Your task to perform on an android device: allow notifications from all sites in the chrome app Image 0: 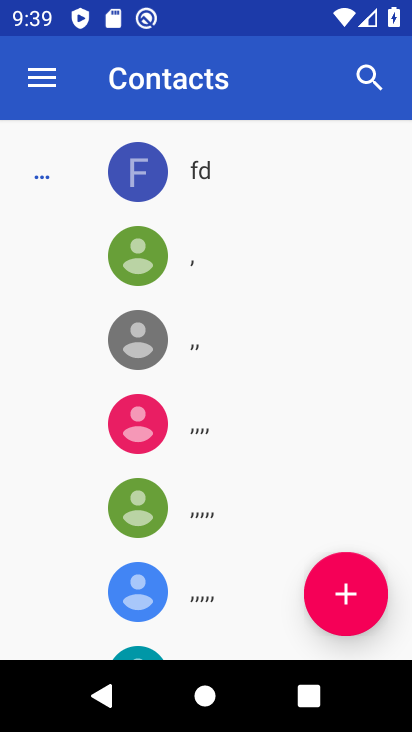
Step 0: press home button
Your task to perform on an android device: allow notifications from all sites in the chrome app Image 1: 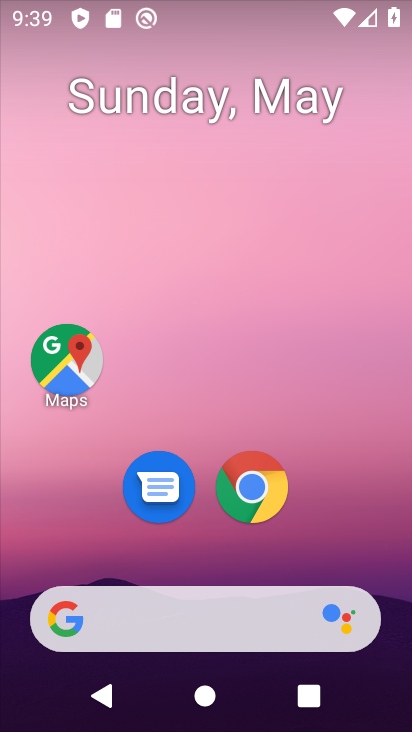
Step 1: drag from (376, 547) to (359, 177)
Your task to perform on an android device: allow notifications from all sites in the chrome app Image 2: 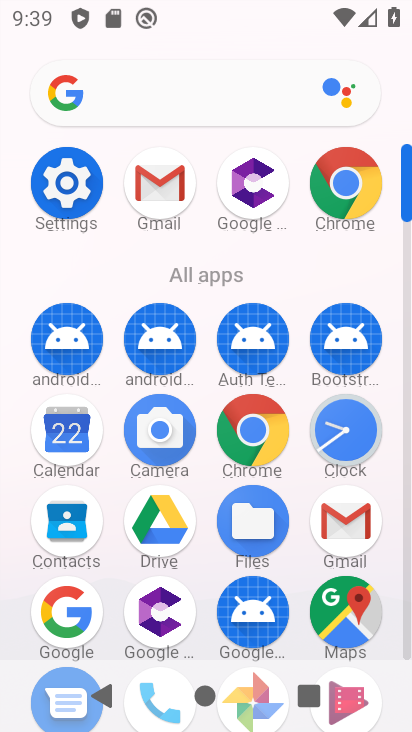
Step 2: click (280, 435)
Your task to perform on an android device: allow notifications from all sites in the chrome app Image 3: 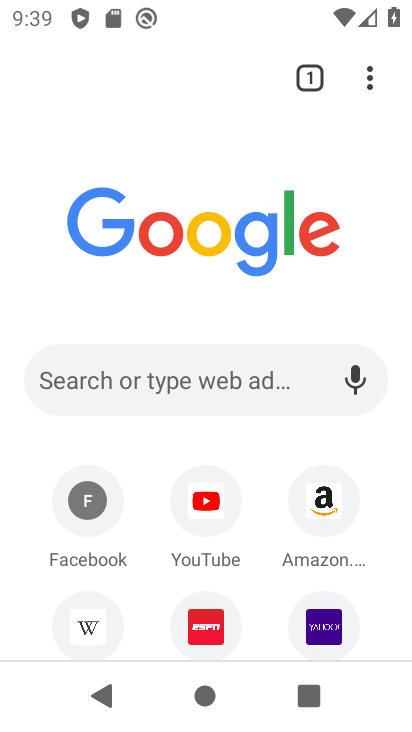
Step 3: click (373, 86)
Your task to perform on an android device: allow notifications from all sites in the chrome app Image 4: 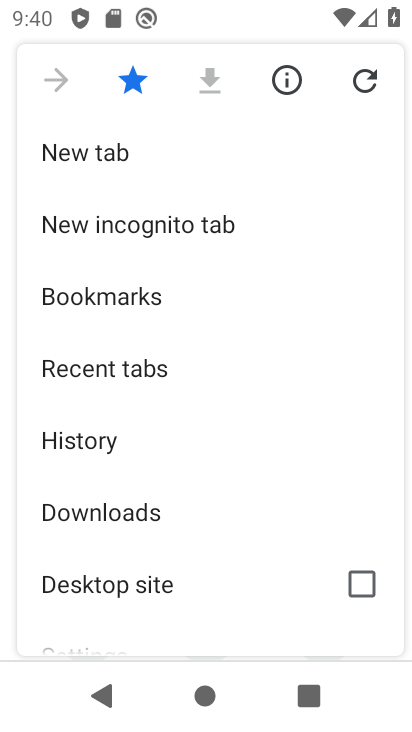
Step 4: drag from (295, 504) to (281, 319)
Your task to perform on an android device: allow notifications from all sites in the chrome app Image 5: 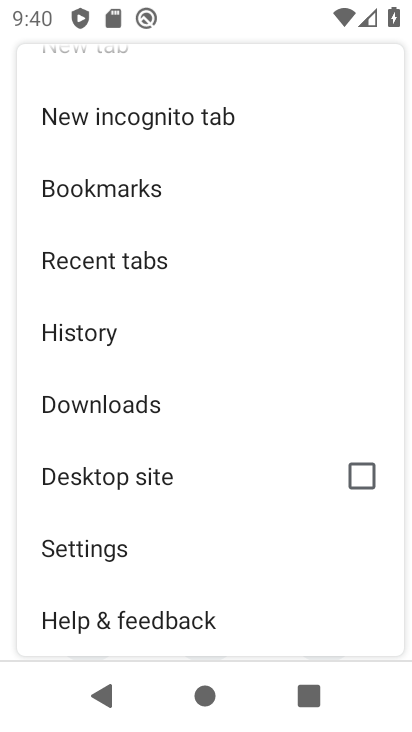
Step 5: drag from (238, 491) to (238, 331)
Your task to perform on an android device: allow notifications from all sites in the chrome app Image 6: 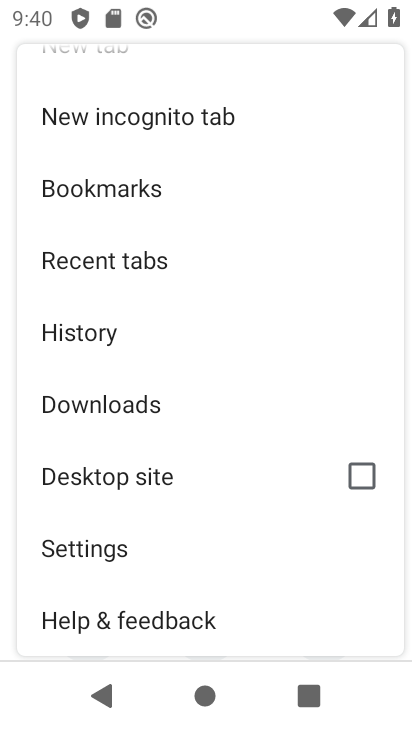
Step 6: click (119, 530)
Your task to perform on an android device: allow notifications from all sites in the chrome app Image 7: 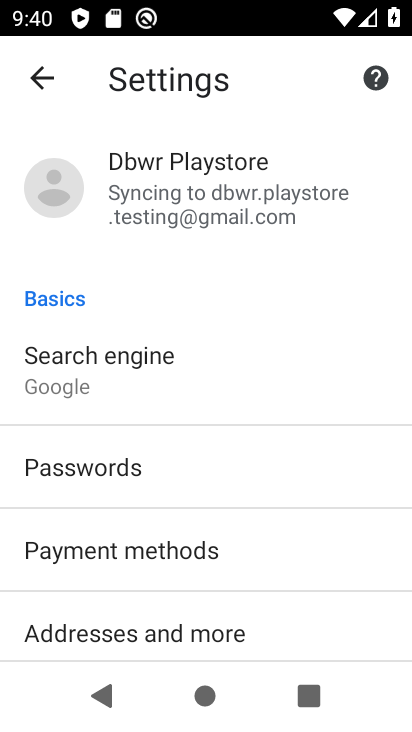
Step 7: drag from (261, 607) to (287, 419)
Your task to perform on an android device: allow notifications from all sites in the chrome app Image 8: 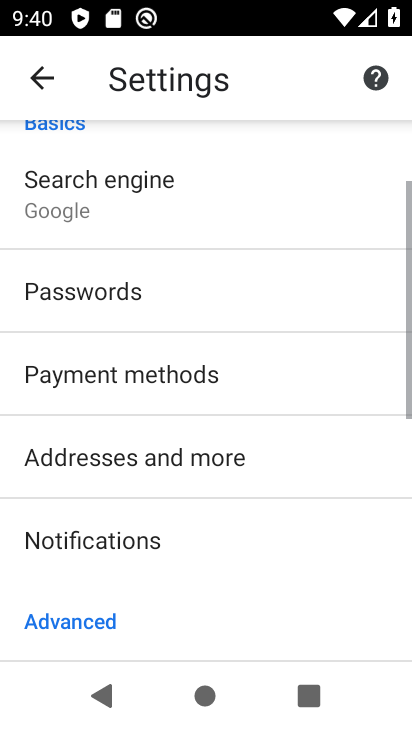
Step 8: drag from (277, 594) to (274, 458)
Your task to perform on an android device: allow notifications from all sites in the chrome app Image 9: 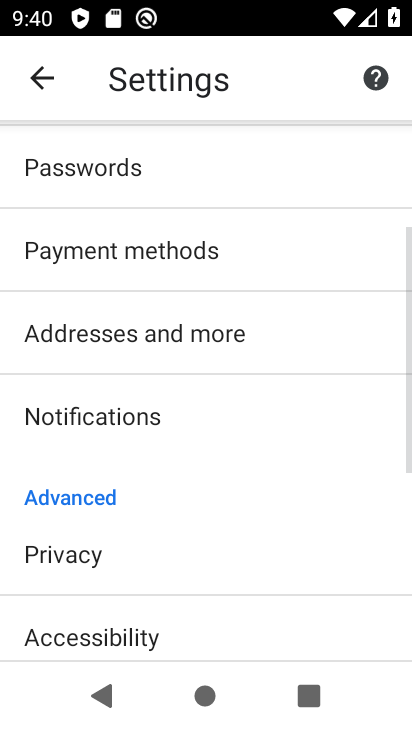
Step 9: drag from (303, 576) to (304, 439)
Your task to perform on an android device: allow notifications from all sites in the chrome app Image 10: 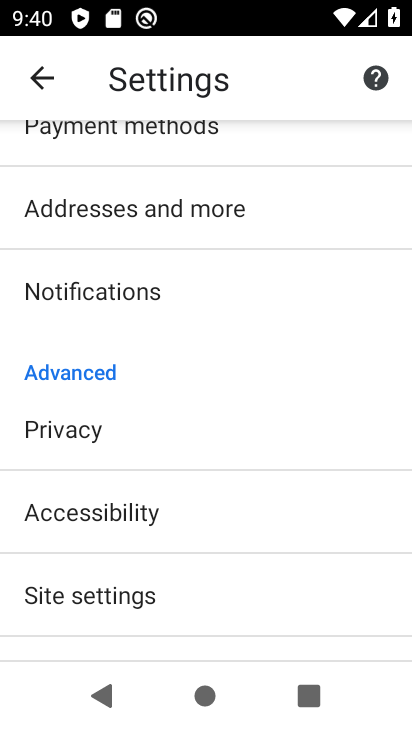
Step 10: drag from (319, 521) to (319, 364)
Your task to perform on an android device: allow notifications from all sites in the chrome app Image 11: 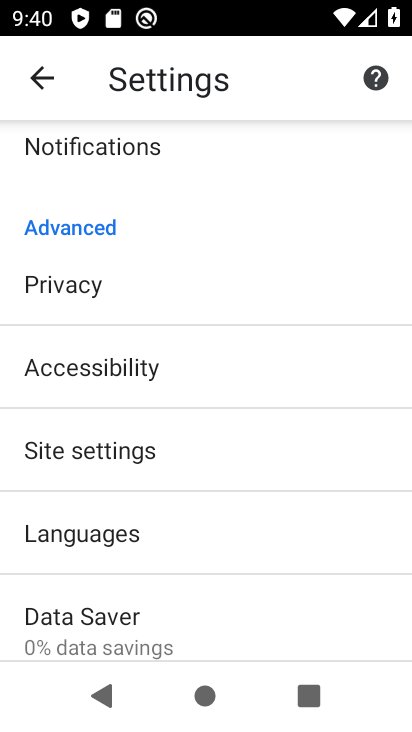
Step 11: drag from (300, 553) to (295, 414)
Your task to perform on an android device: allow notifications from all sites in the chrome app Image 12: 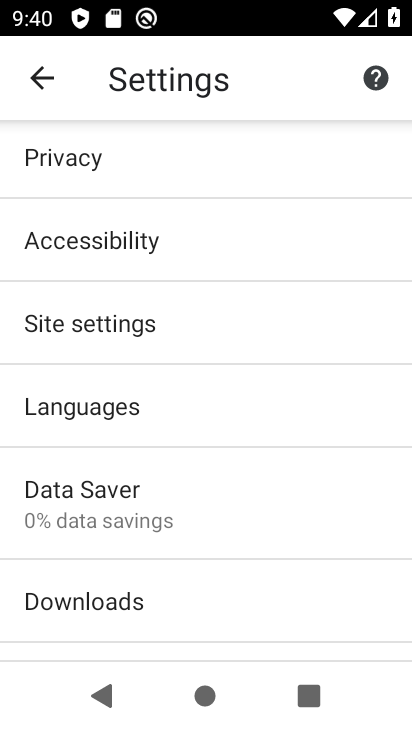
Step 12: drag from (306, 520) to (305, 378)
Your task to perform on an android device: allow notifications from all sites in the chrome app Image 13: 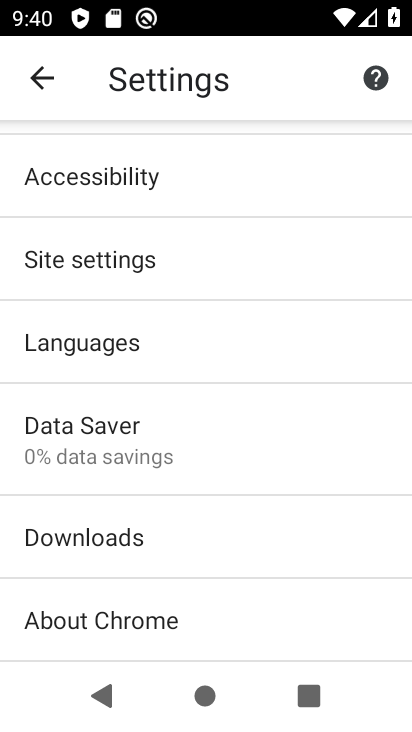
Step 13: drag from (304, 600) to (303, 474)
Your task to perform on an android device: allow notifications from all sites in the chrome app Image 14: 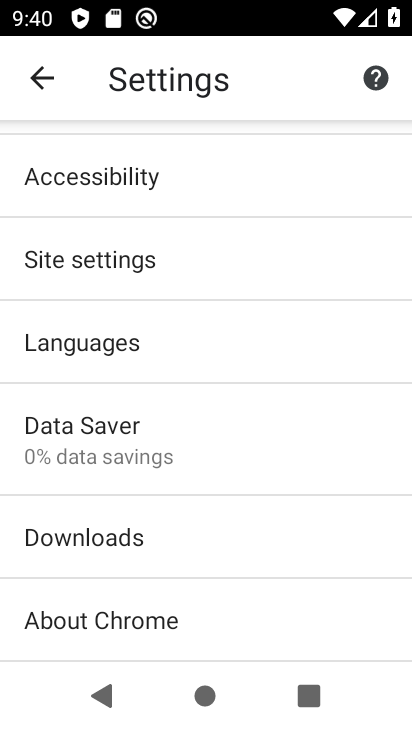
Step 14: click (204, 264)
Your task to perform on an android device: allow notifications from all sites in the chrome app Image 15: 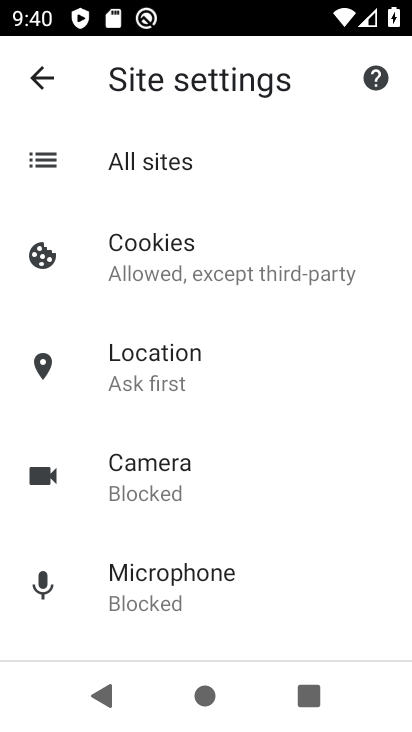
Step 15: drag from (328, 576) to (318, 461)
Your task to perform on an android device: allow notifications from all sites in the chrome app Image 16: 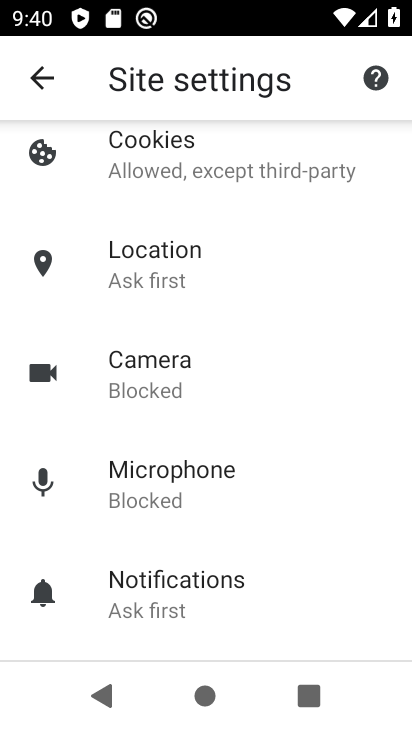
Step 16: drag from (328, 556) to (327, 433)
Your task to perform on an android device: allow notifications from all sites in the chrome app Image 17: 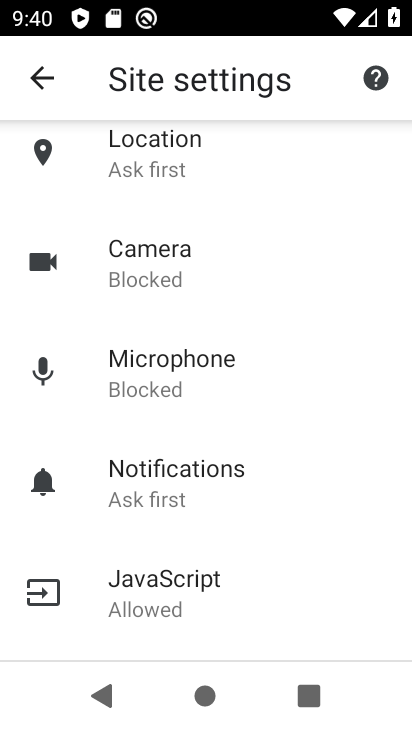
Step 17: drag from (336, 553) to (346, 450)
Your task to perform on an android device: allow notifications from all sites in the chrome app Image 18: 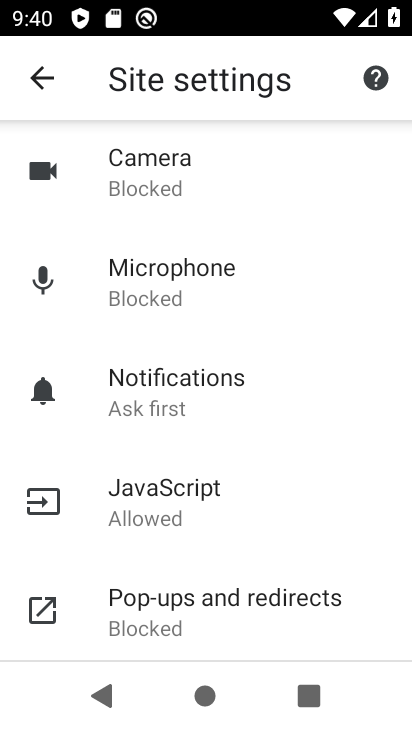
Step 18: drag from (342, 557) to (350, 346)
Your task to perform on an android device: allow notifications from all sites in the chrome app Image 19: 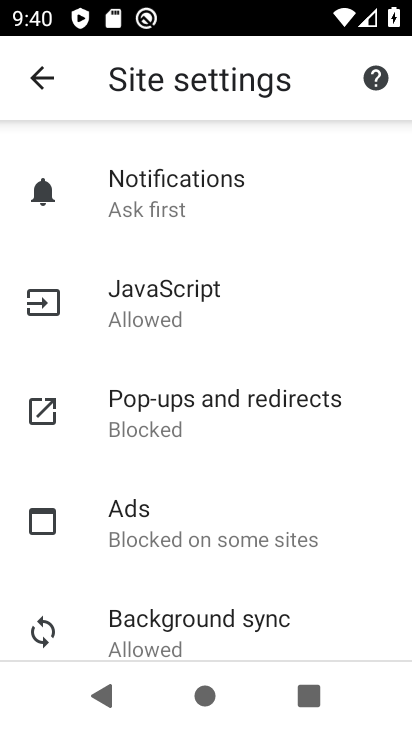
Step 19: drag from (370, 225) to (351, 403)
Your task to perform on an android device: allow notifications from all sites in the chrome app Image 20: 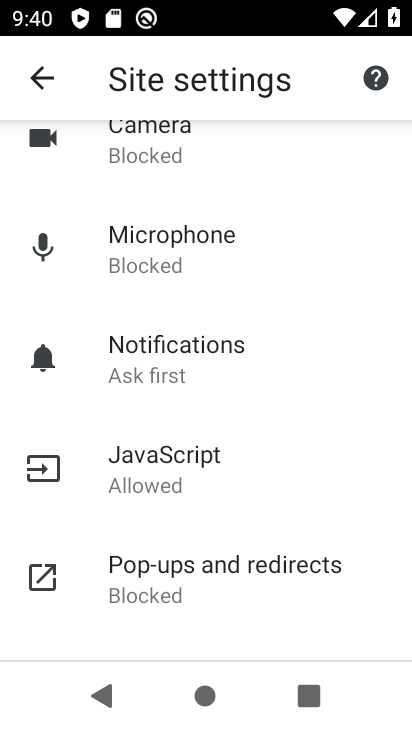
Step 20: drag from (349, 313) to (354, 437)
Your task to perform on an android device: allow notifications from all sites in the chrome app Image 21: 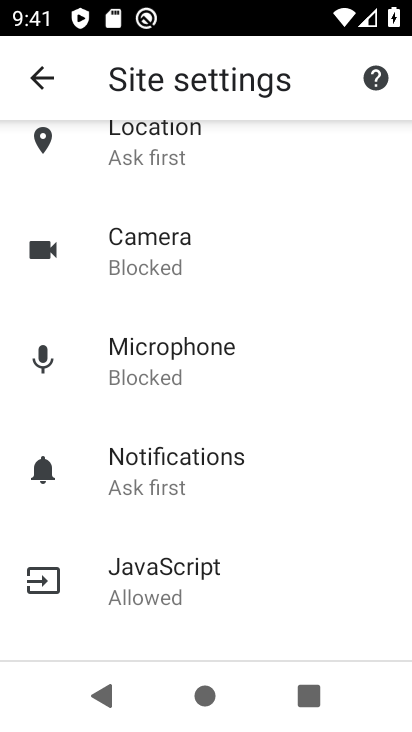
Step 21: click (191, 448)
Your task to perform on an android device: allow notifications from all sites in the chrome app Image 22: 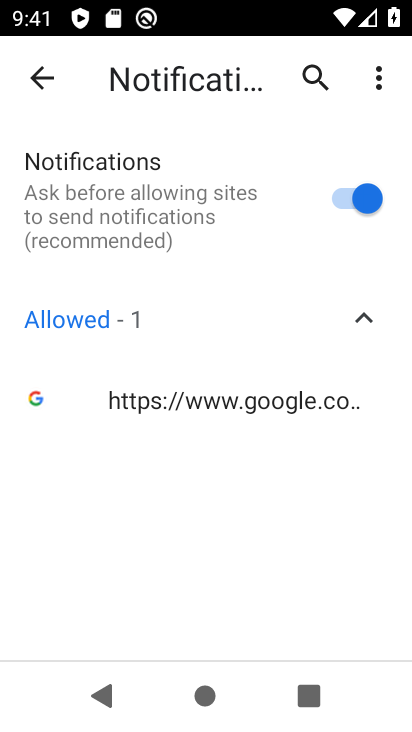
Step 22: task complete